Your task to perform on an android device: Show me recent news Image 0: 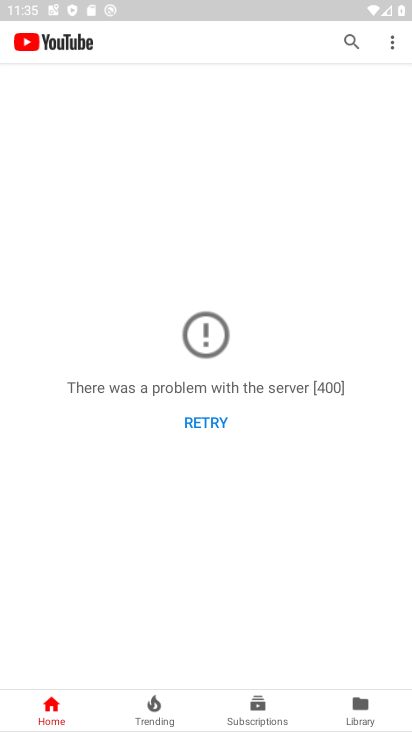
Step 0: press back button
Your task to perform on an android device: Show me recent news Image 1: 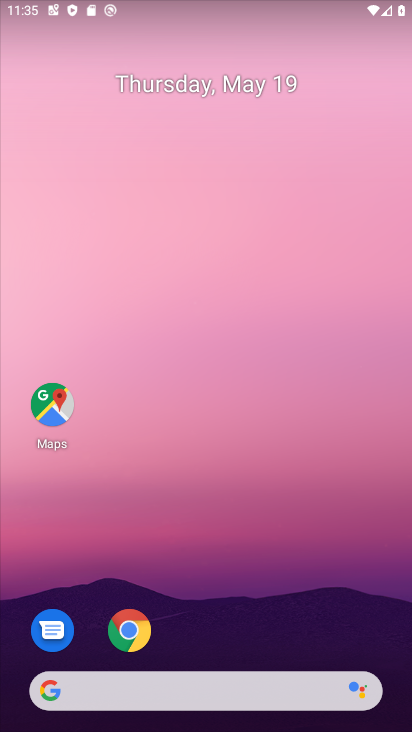
Step 1: drag from (272, 631) to (207, 265)
Your task to perform on an android device: Show me recent news Image 2: 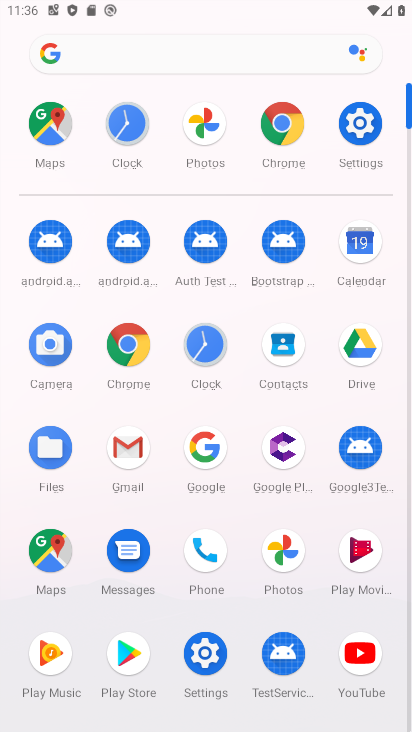
Step 2: click (200, 445)
Your task to perform on an android device: Show me recent news Image 3: 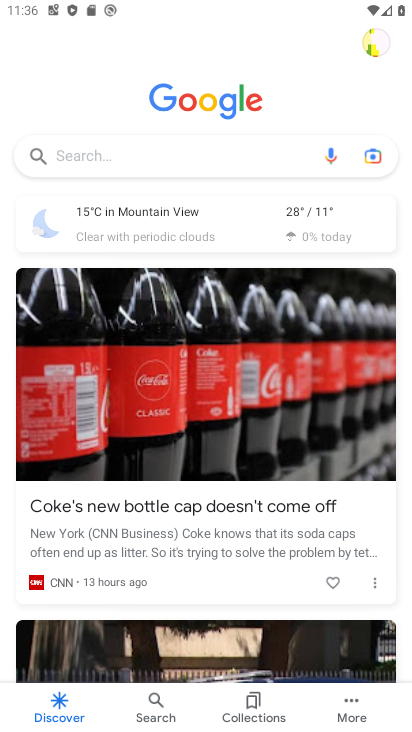
Step 3: click (157, 154)
Your task to perform on an android device: Show me recent news Image 4: 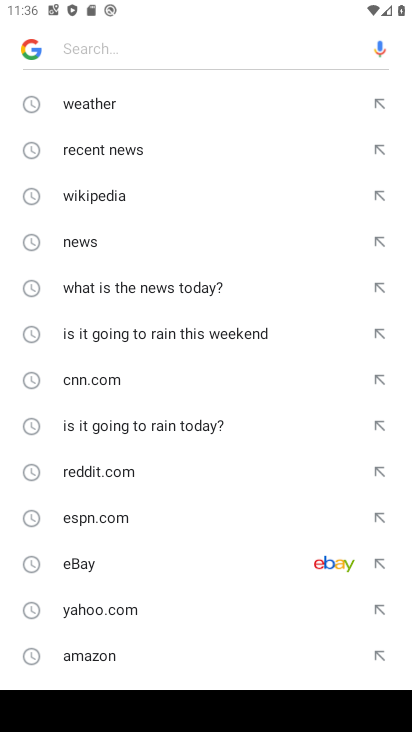
Step 4: type "recent news"
Your task to perform on an android device: Show me recent news Image 5: 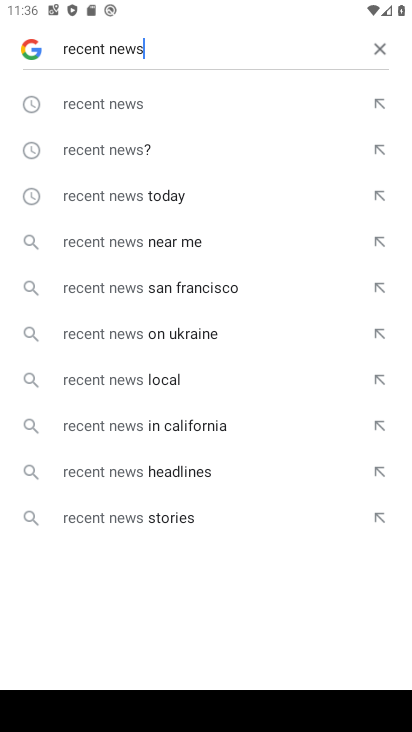
Step 5: click (108, 104)
Your task to perform on an android device: Show me recent news Image 6: 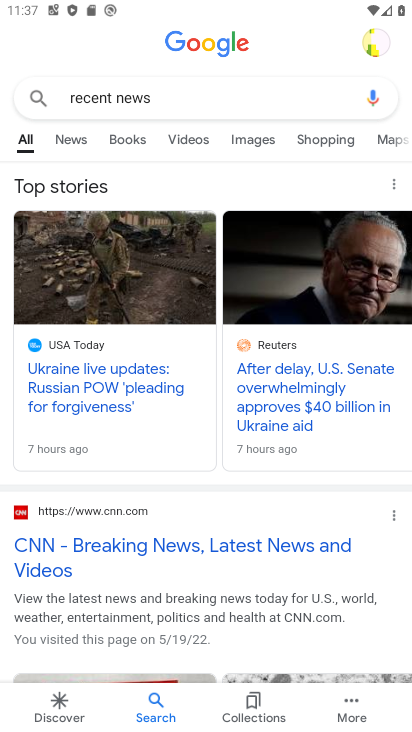
Step 6: task complete